Your task to perform on an android device: turn off wifi Image 0: 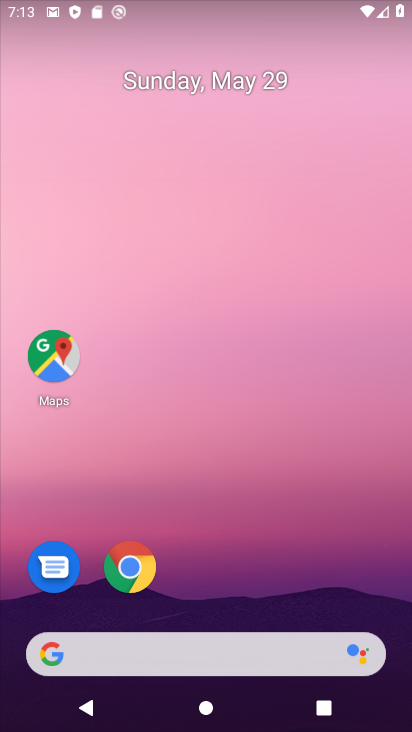
Step 0: drag from (273, 634) to (293, 253)
Your task to perform on an android device: turn off wifi Image 1: 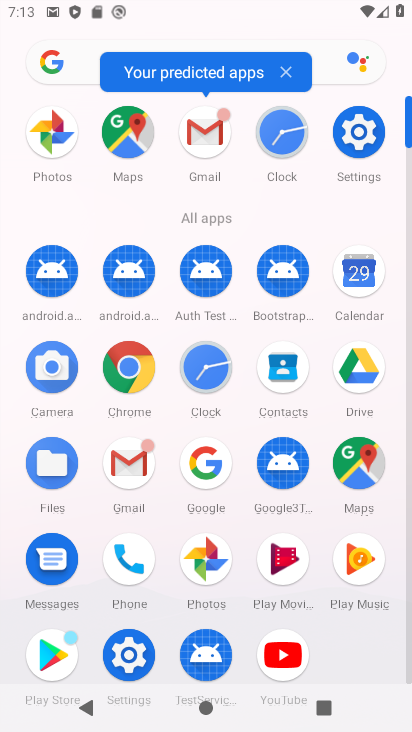
Step 1: click (366, 121)
Your task to perform on an android device: turn off wifi Image 2: 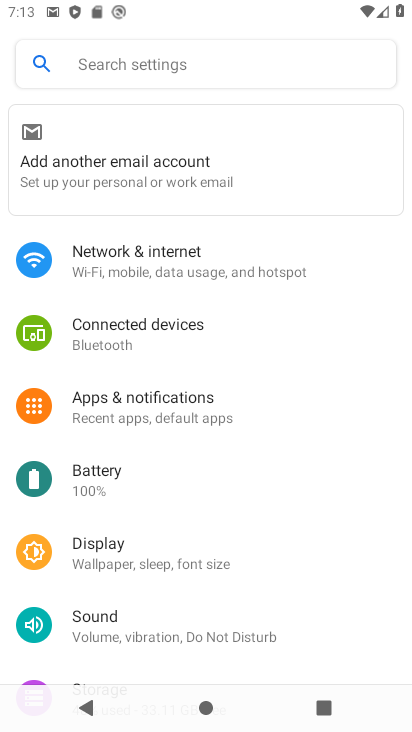
Step 2: click (216, 273)
Your task to perform on an android device: turn off wifi Image 3: 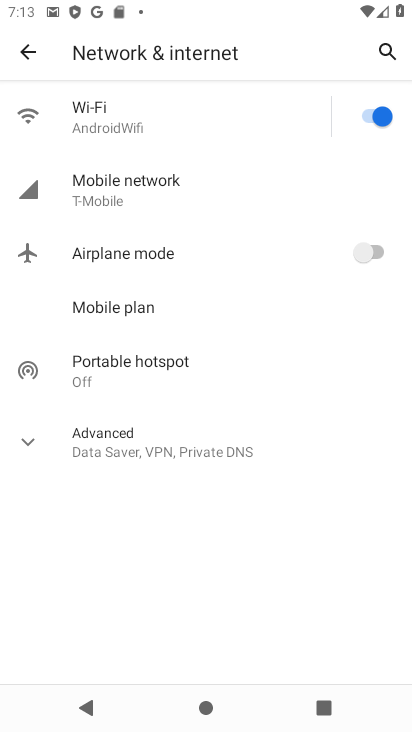
Step 3: click (362, 109)
Your task to perform on an android device: turn off wifi Image 4: 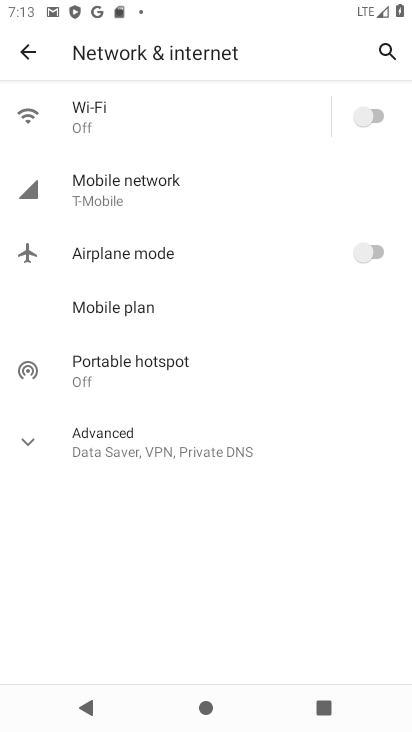
Step 4: task complete